Your task to perform on an android device: turn off data saver in the chrome app Image 0: 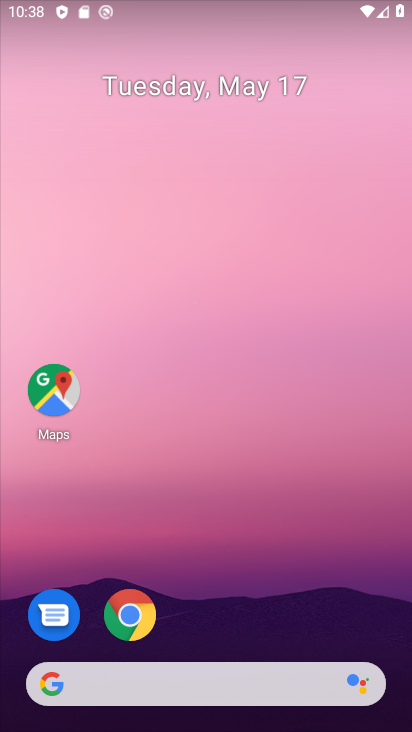
Step 0: click (122, 616)
Your task to perform on an android device: turn off data saver in the chrome app Image 1: 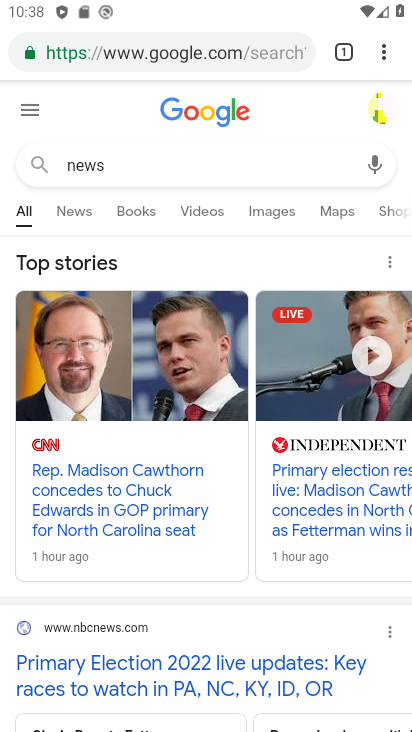
Step 1: click (379, 52)
Your task to perform on an android device: turn off data saver in the chrome app Image 2: 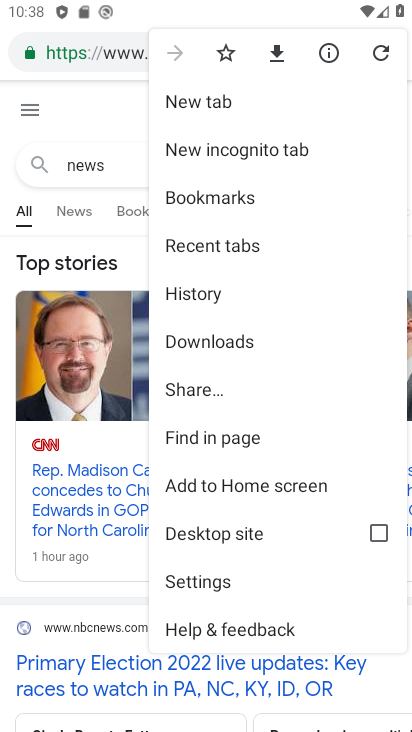
Step 2: click (207, 585)
Your task to perform on an android device: turn off data saver in the chrome app Image 3: 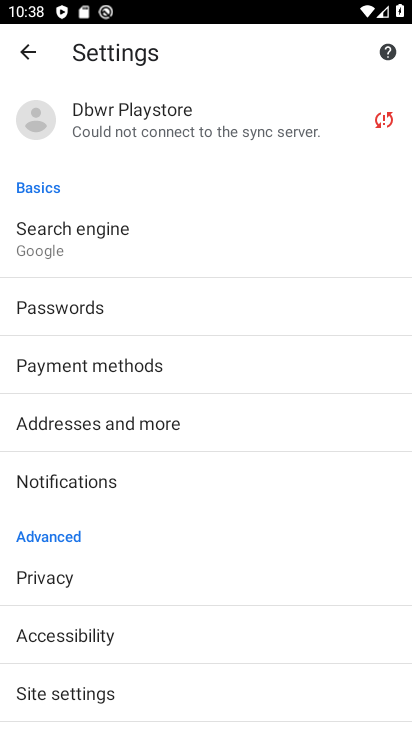
Step 3: drag from (153, 657) to (248, 257)
Your task to perform on an android device: turn off data saver in the chrome app Image 4: 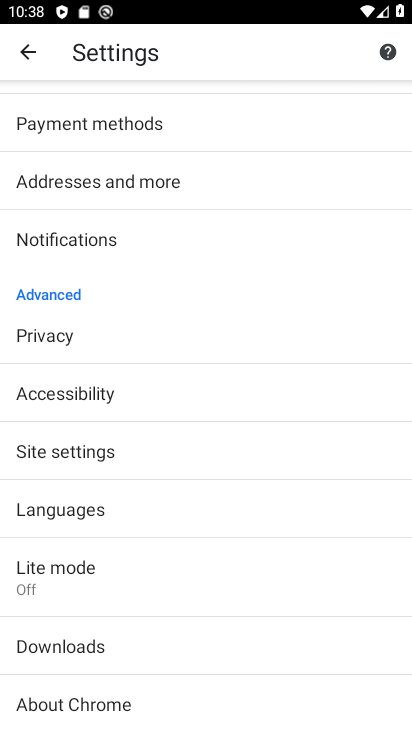
Step 4: click (72, 582)
Your task to perform on an android device: turn off data saver in the chrome app Image 5: 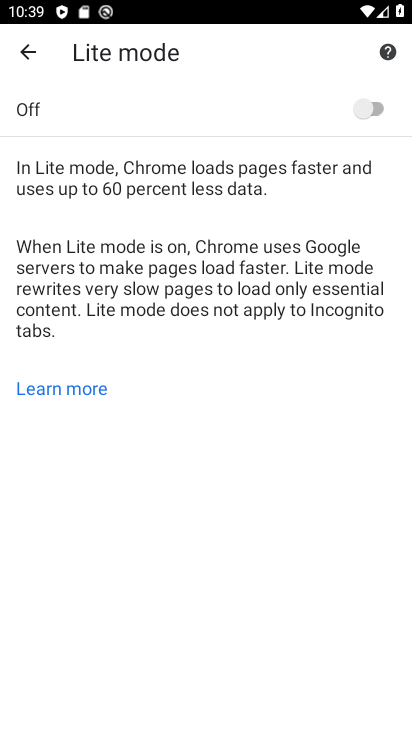
Step 5: task complete